Your task to perform on an android device: turn off javascript in the chrome app Image 0: 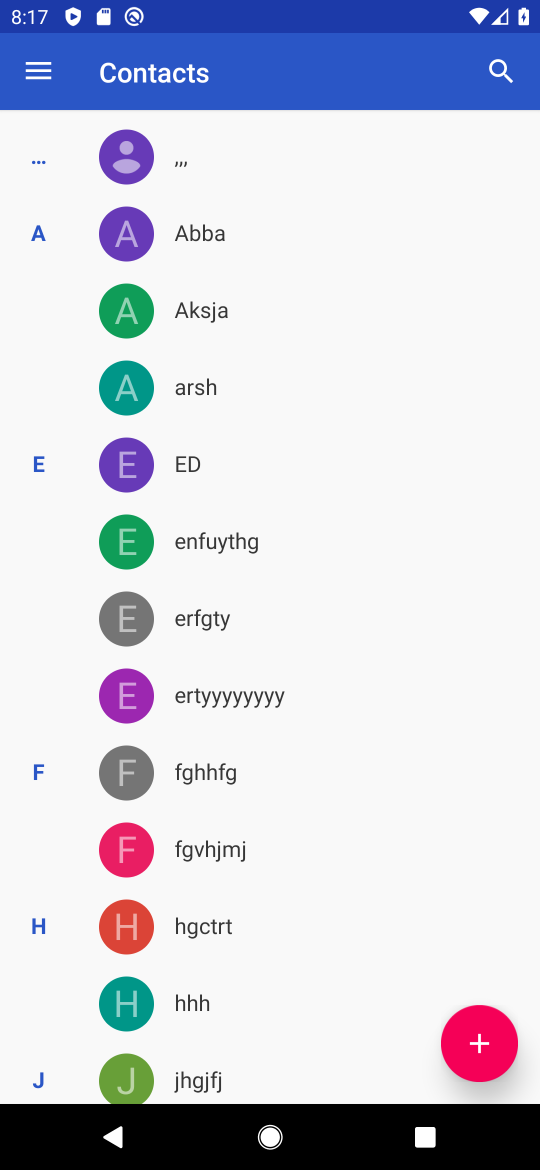
Step 0: press home button
Your task to perform on an android device: turn off javascript in the chrome app Image 1: 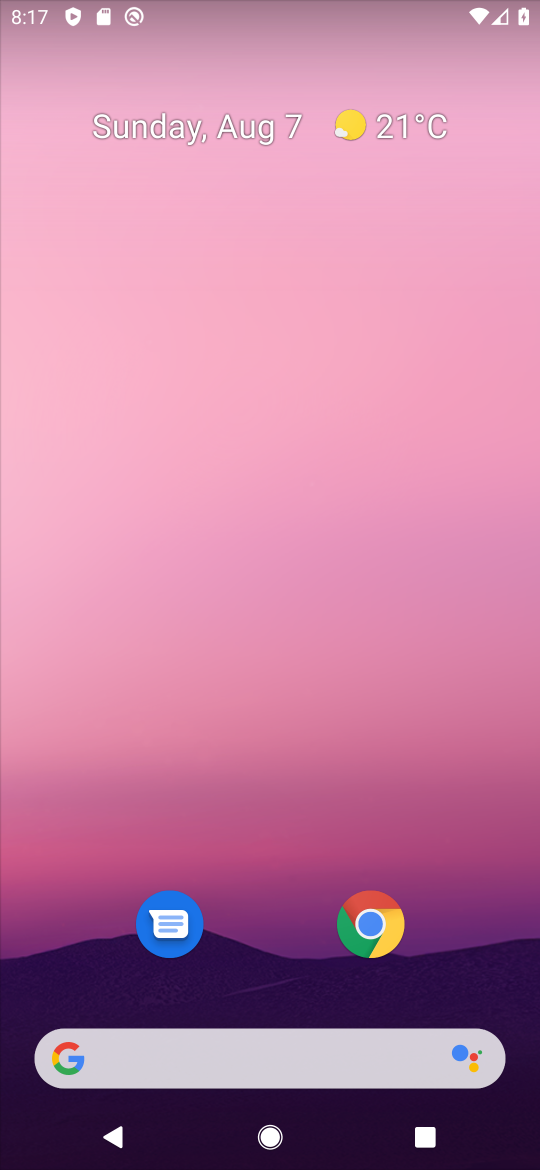
Step 1: click (371, 935)
Your task to perform on an android device: turn off javascript in the chrome app Image 2: 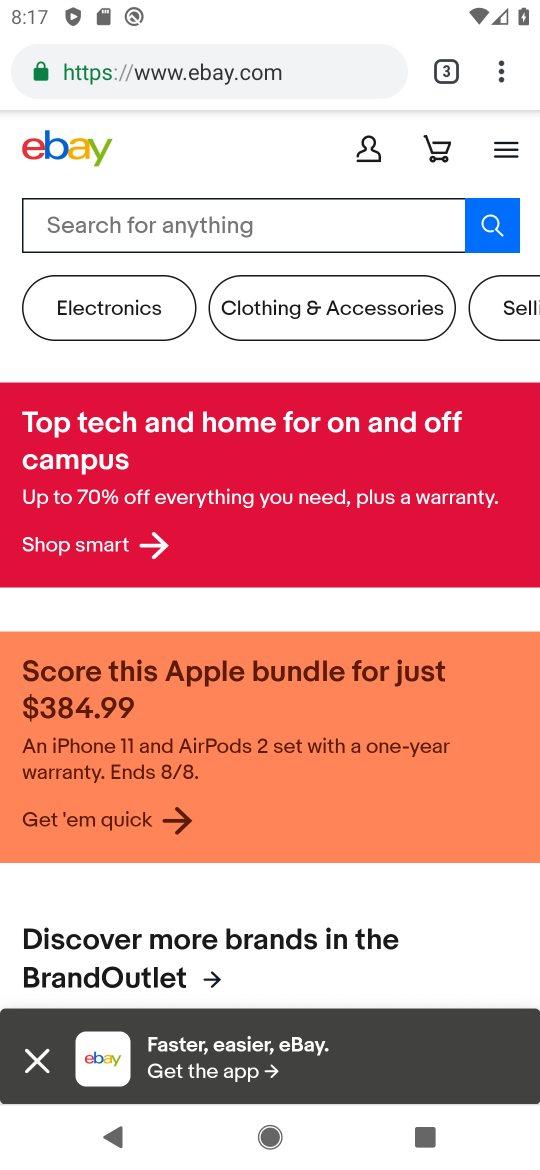
Step 2: click (506, 71)
Your task to perform on an android device: turn off javascript in the chrome app Image 3: 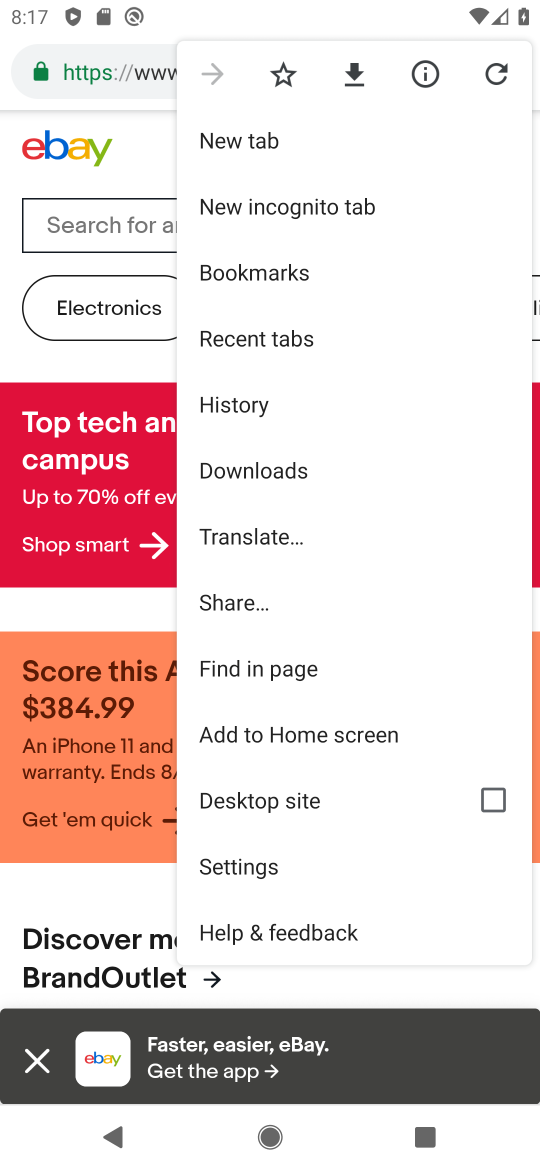
Step 3: click (290, 866)
Your task to perform on an android device: turn off javascript in the chrome app Image 4: 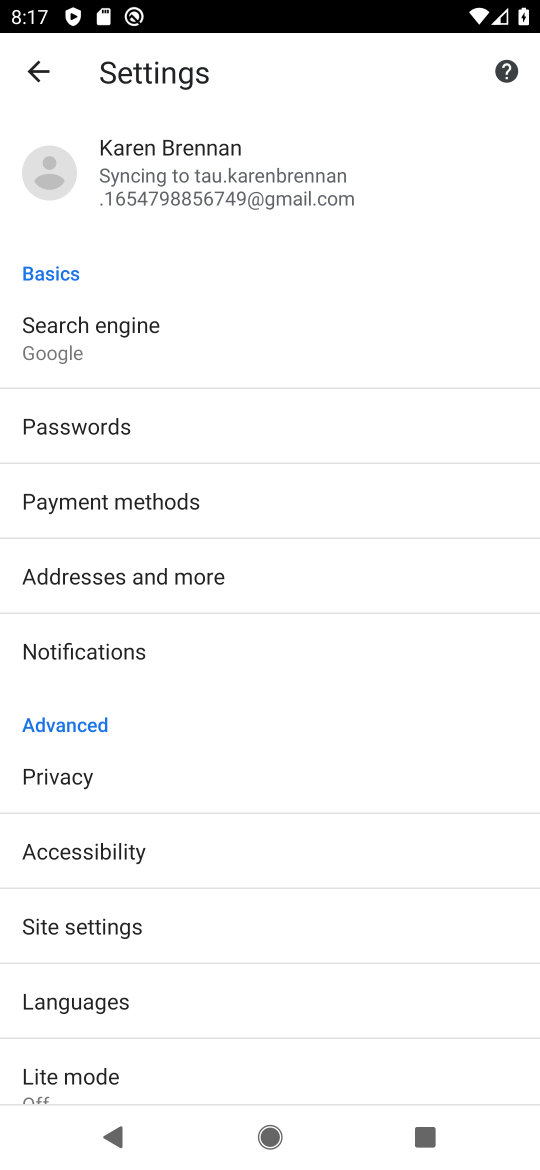
Step 4: click (262, 930)
Your task to perform on an android device: turn off javascript in the chrome app Image 5: 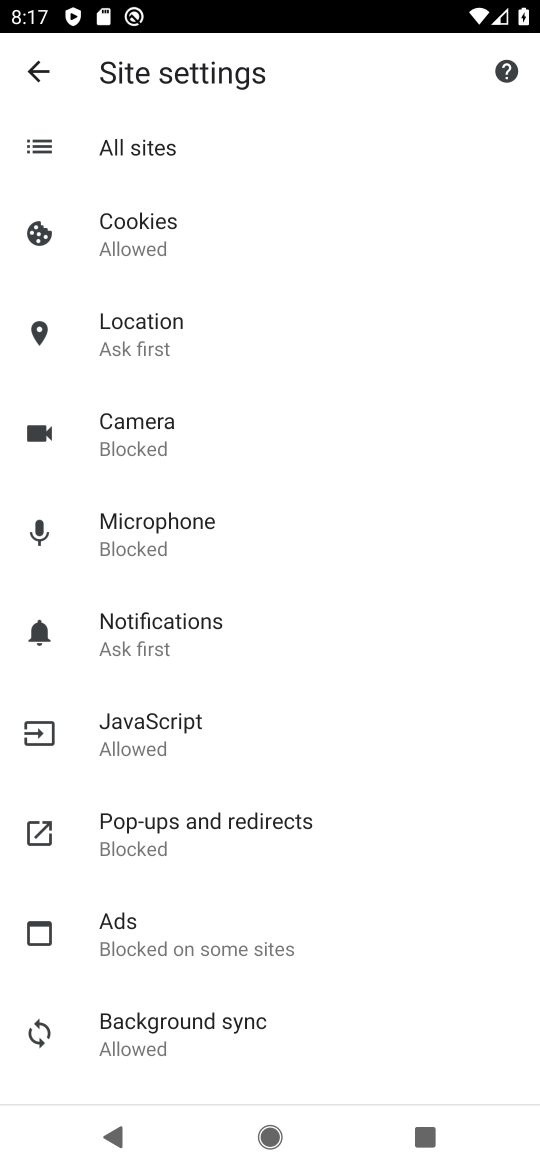
Step 5: click (143, 735)
Your task to perform on an android device: turn off javascript in the chrome app Image 6: 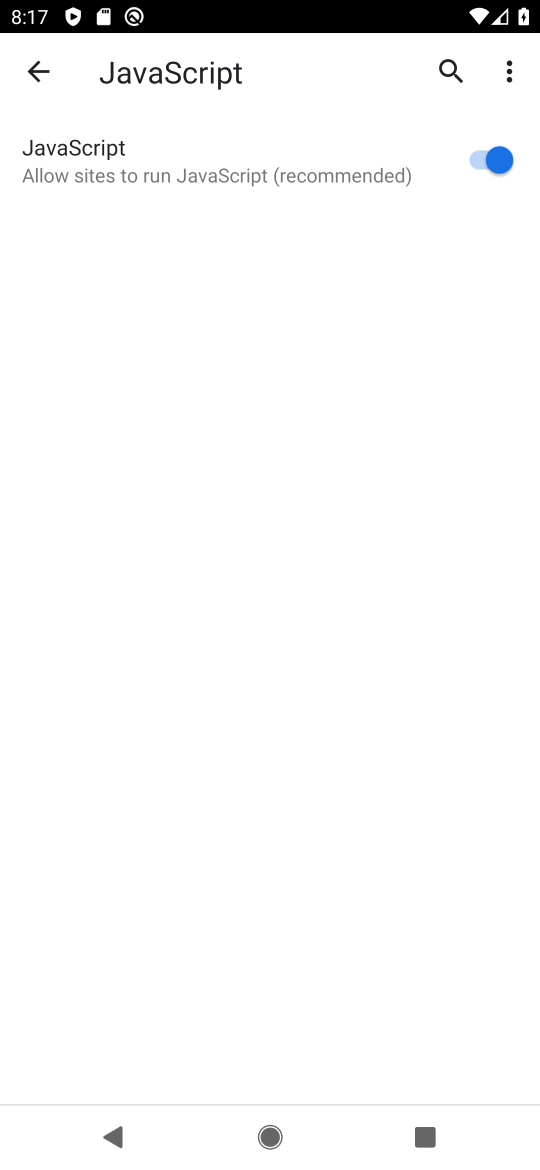
Step 6: click (497, 161)
Your task to perform on an android device: turn off javascript in the chrome app Image 7: 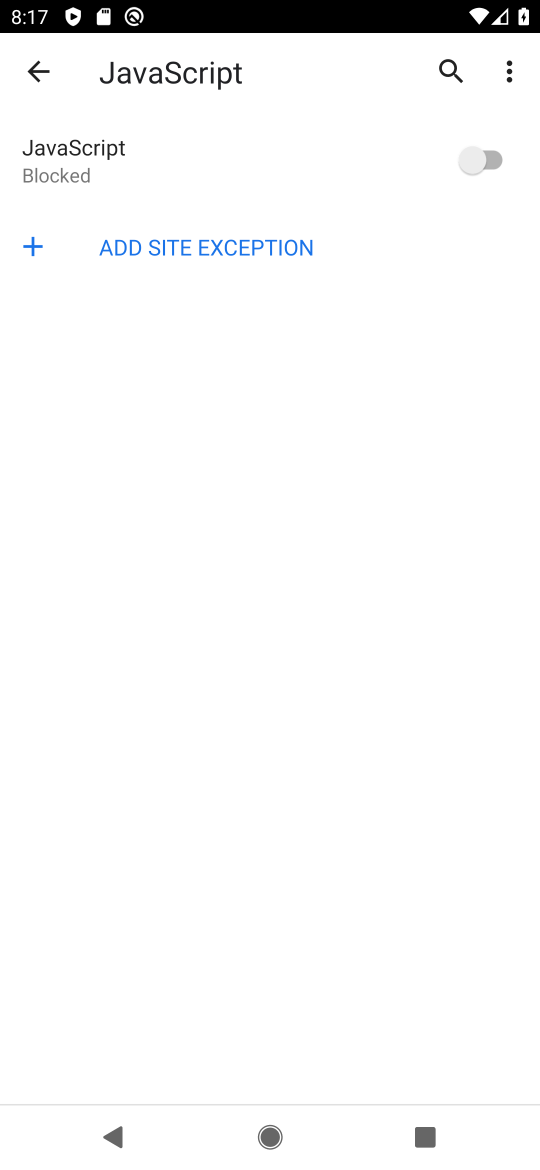
Step 7: task complete